Your task to perform on an android device: Open Google Maps and go to "Timeline" Image 0: 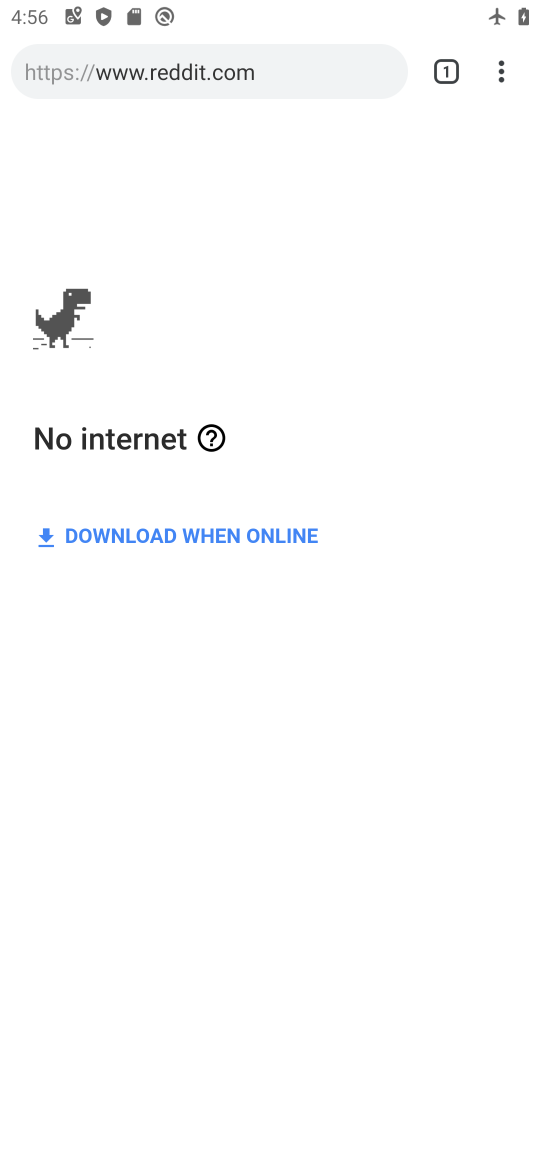
Step 0: press home button
Your task to perform on an android device: Open Google Maps and go to "Timeline" Image 1: 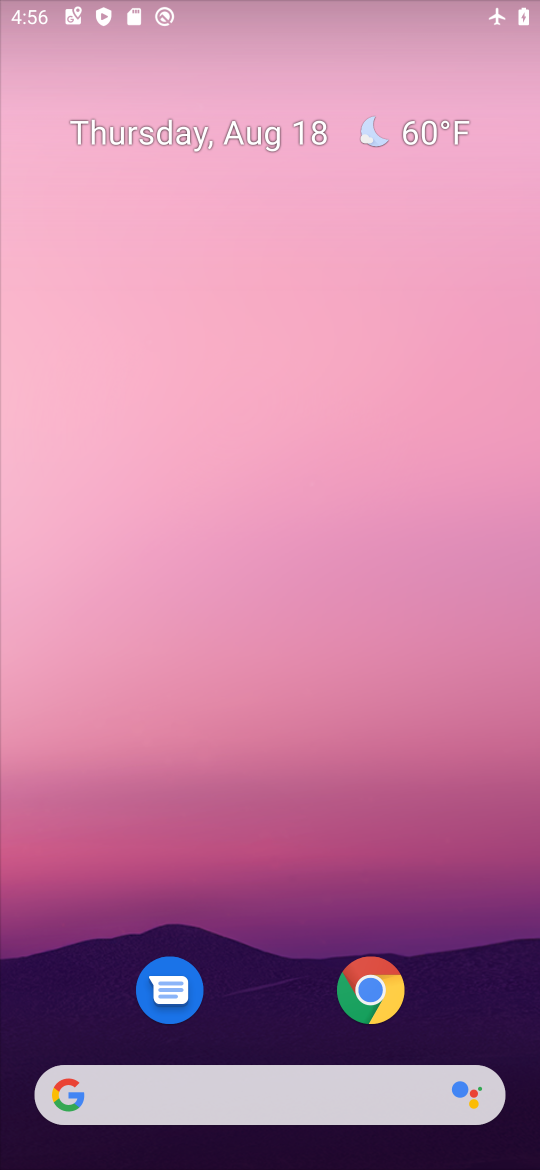
Step 1: drag from (292, 944) to (447, 142)
Your task to perform on an android device: Open Google Maps and go to "Timeline" Image 2: 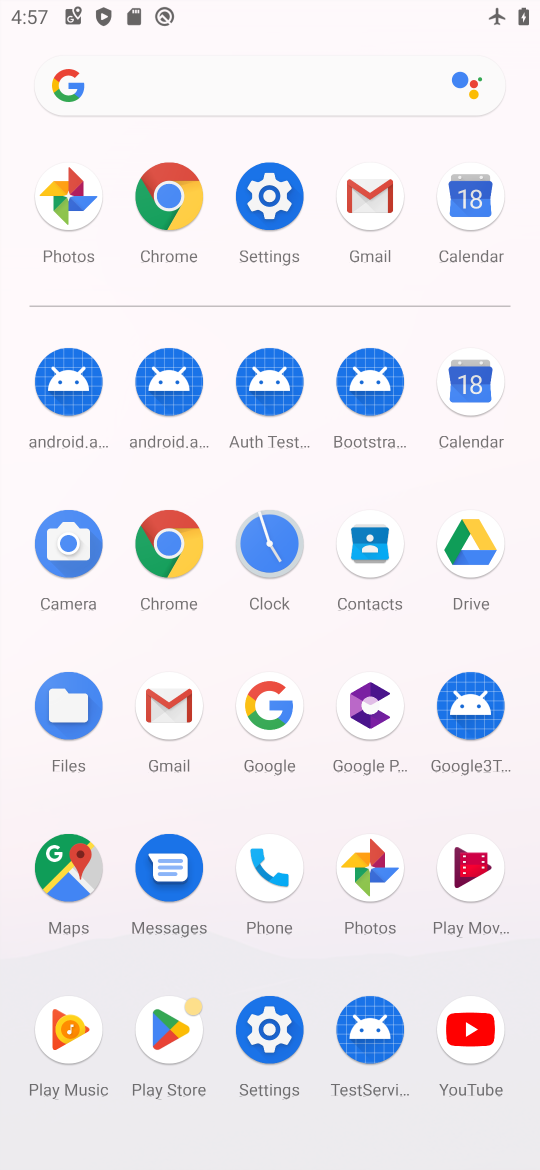
Step 2: click (72, 860)
Your task to perform on an android device: Open Google Maps and go to "Timeline" Image 3: 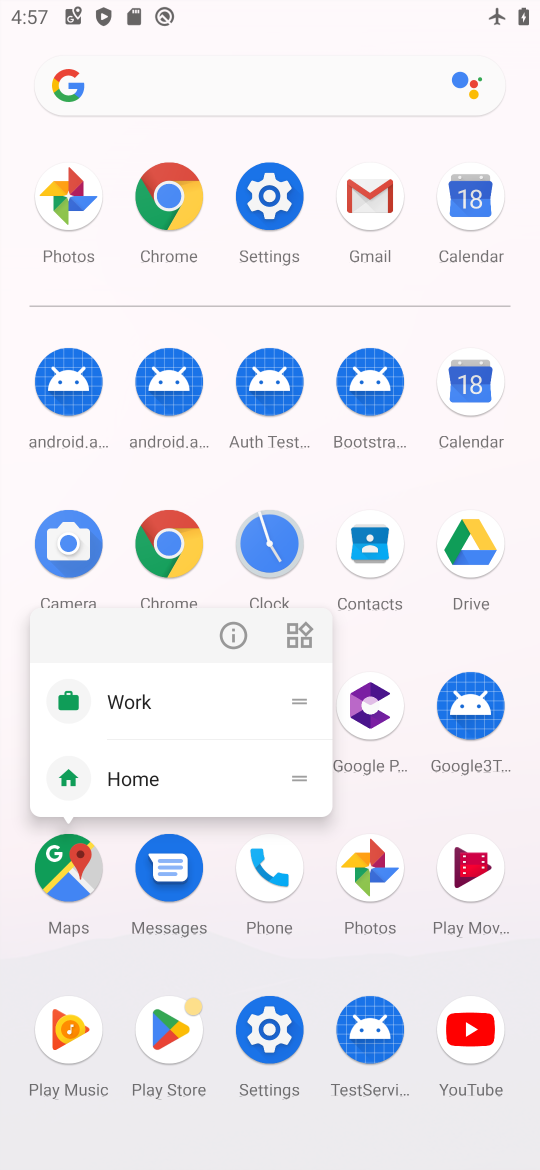
Step 3: click (56, 869)
Your task to perform on an android device: Open Google Maps and go to "Timeline" Image 4: 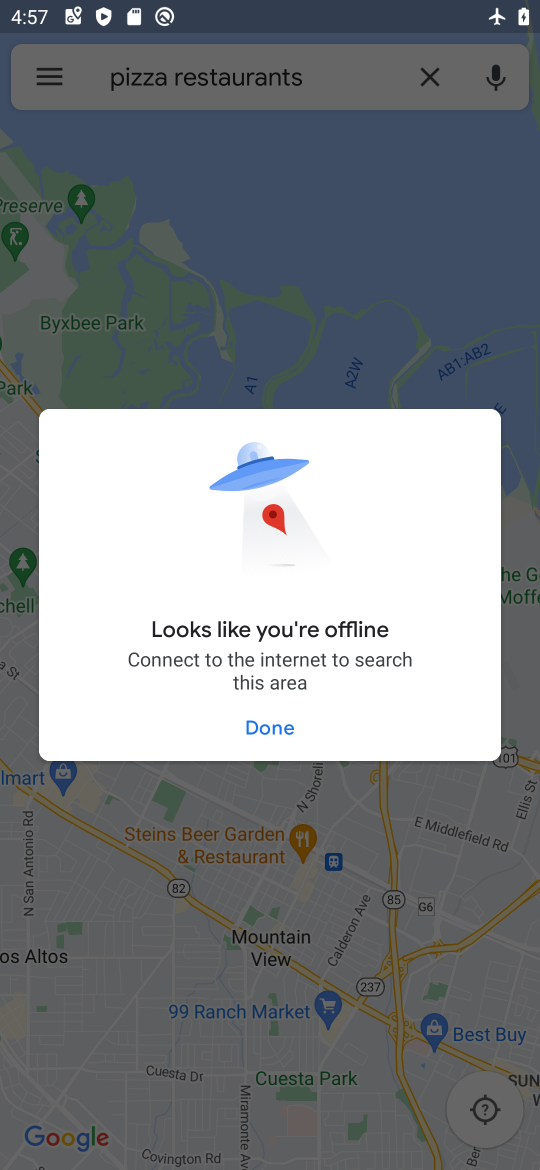
Step 4: task complete